Your task to perform on an android device: toggle javascript in the chrome app Image 0: 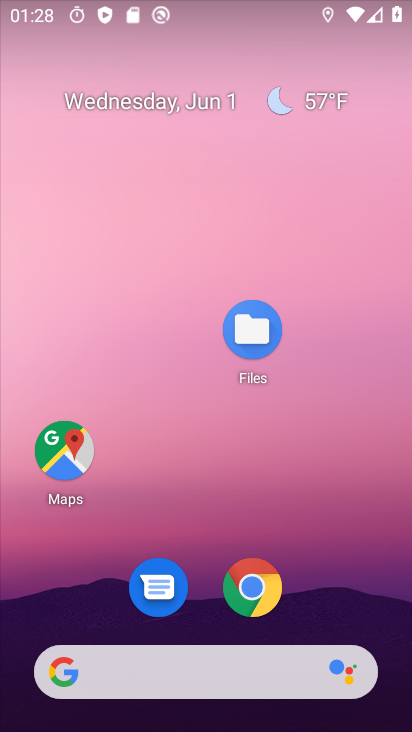
Step 0: click (261, 589)
Your task to perform on an android device: toggle javascript in the chrome app Image 1: 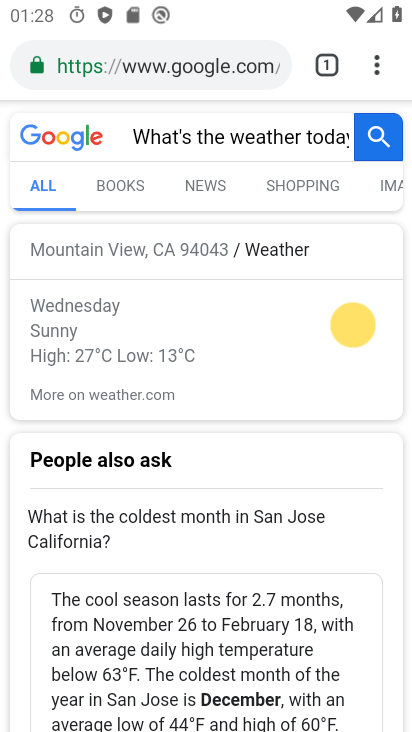
Step 1: drag from (377, 55) to (180, 637)
Your task to perform on an android device: toggle javascript in the chrome app Image 2: 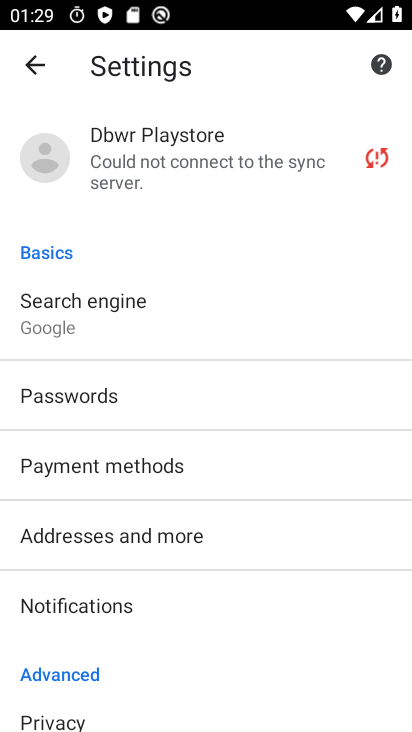
Step 2: drag from (180, 611) to (200, 329)
Your task to perform on an android device: toggle javascript in the chrome app Image 3: 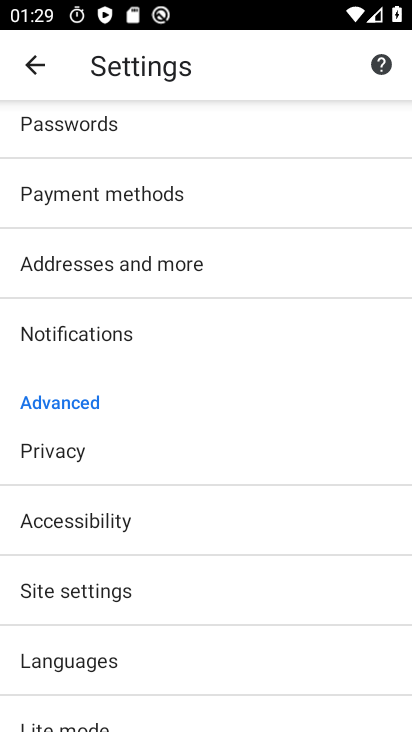
Step 3: click (133, 585)
Your task to perform on an android device: toggle javascript in the chrome app Image 4: 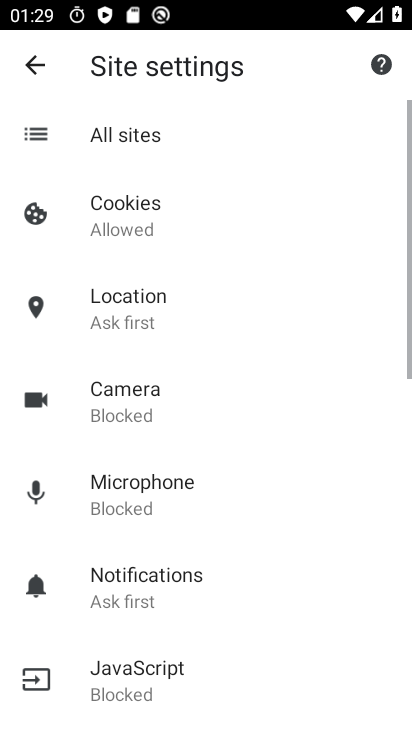
Step 4: drag from (142, 618) to (157, 253)
Your task to perform on an android device: toggle javascript in the chrome app Image 5: 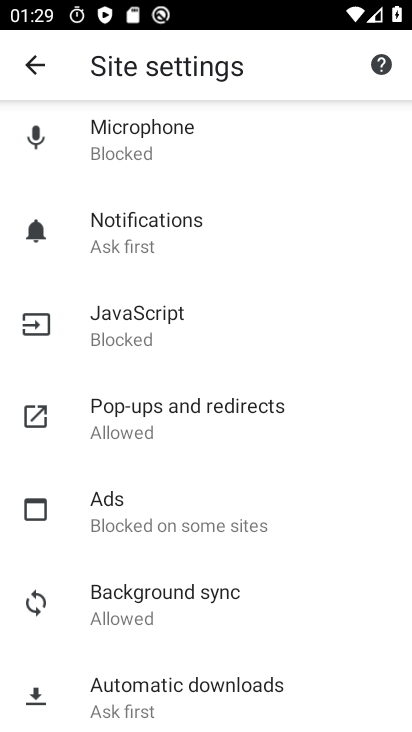
Step 5: click (126, 343)
Your task to perform on an android device: toggle javascript in the chrome app Image 6: 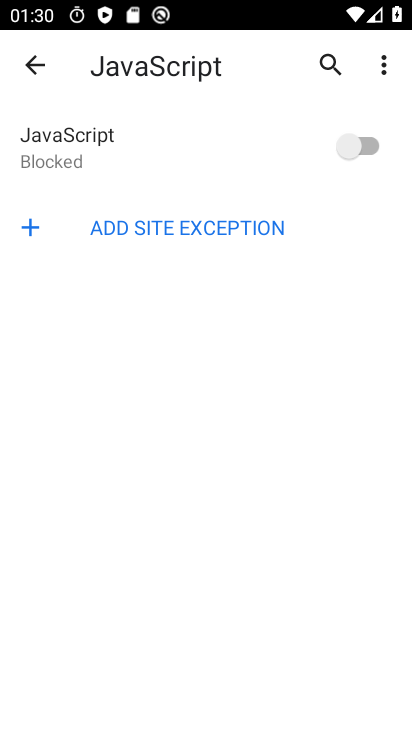
Step 6: click (225, 172)
Your task to perform on an android device: toggle javascript in the chrome app Image 7: 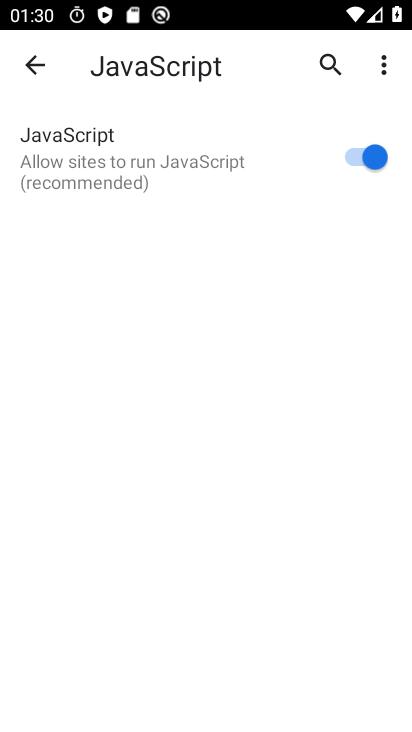
Step 7: task complete